Your task to perform on an android device: uninstall "Adobe Acrobat Reader: Edit PDF" Image 0: 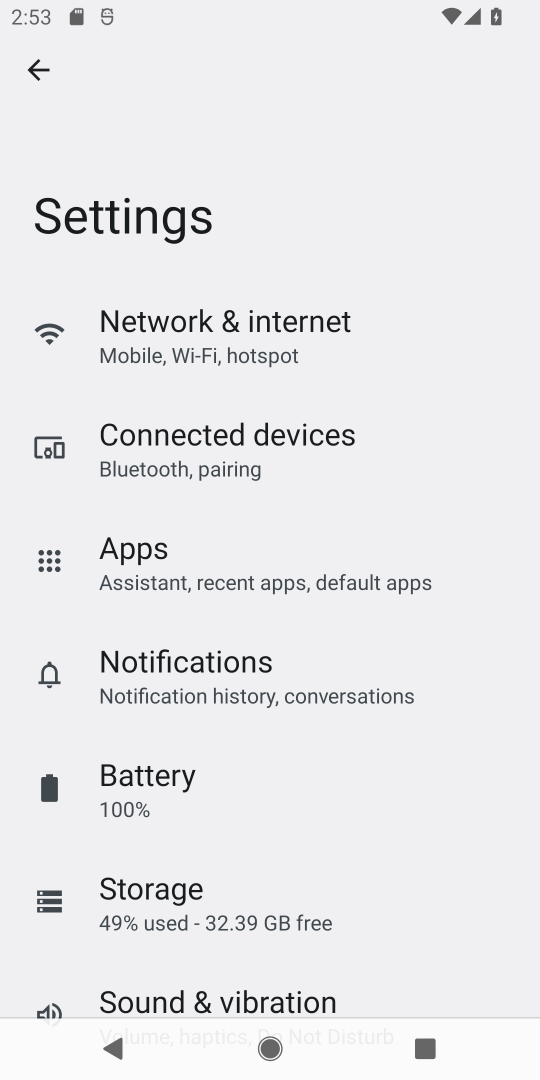
Step 0: press home button
Your task to perform on an android device: uninstall "Adobe Acrobat Reader: Edit PDF" Image 1: 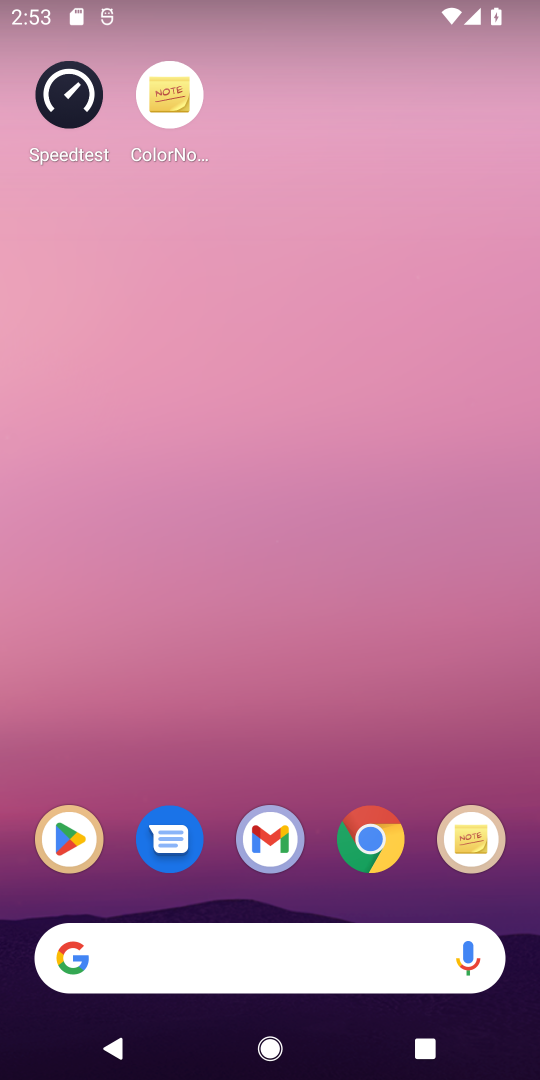
Step 1: click (67, 849)
Your task to perform on an android device: uninstall "Adobe Acrobat Reader: Edit PDF" Image 2: 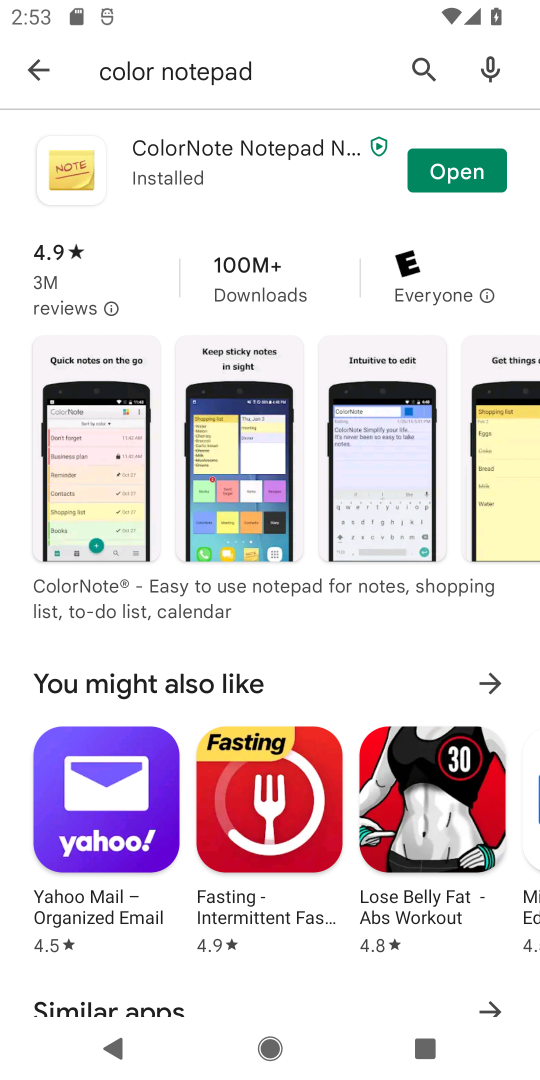
Step 2: click (408, 83)
Your task to perform on an android device: uninstall "Adobe Acrobat Reader: Edit PDF" Image 3: 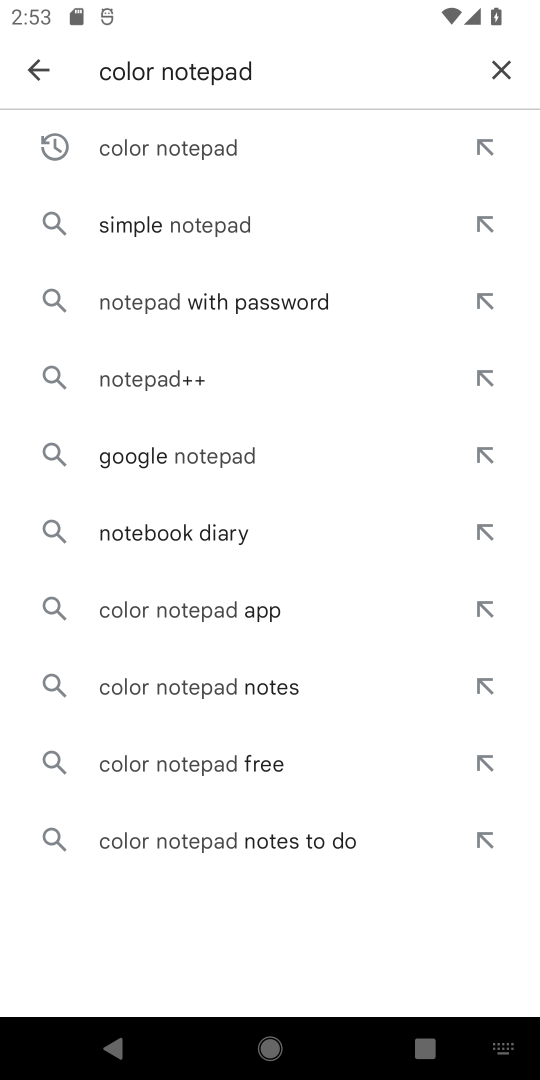
Step 3: click (517, 77)
Your task to perform on an android device: uninstall "Adobe Acrobat Reader: Edit PDF" Image 4: 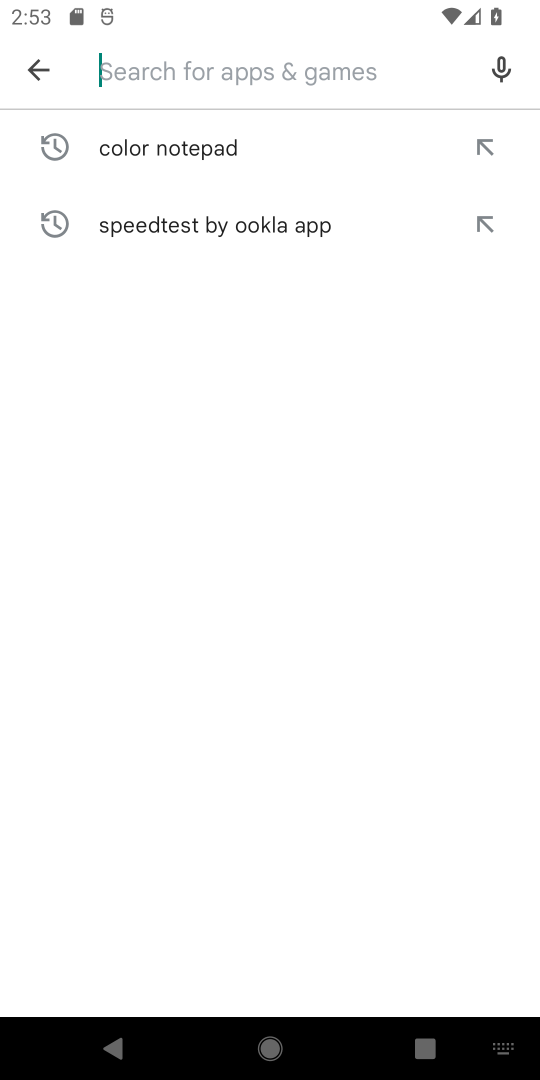
Step 4: type "adobe reader"
Your task to perform on an android device: uninstall "Adobe Acrobat Reader: Edit PDF" Image 5: 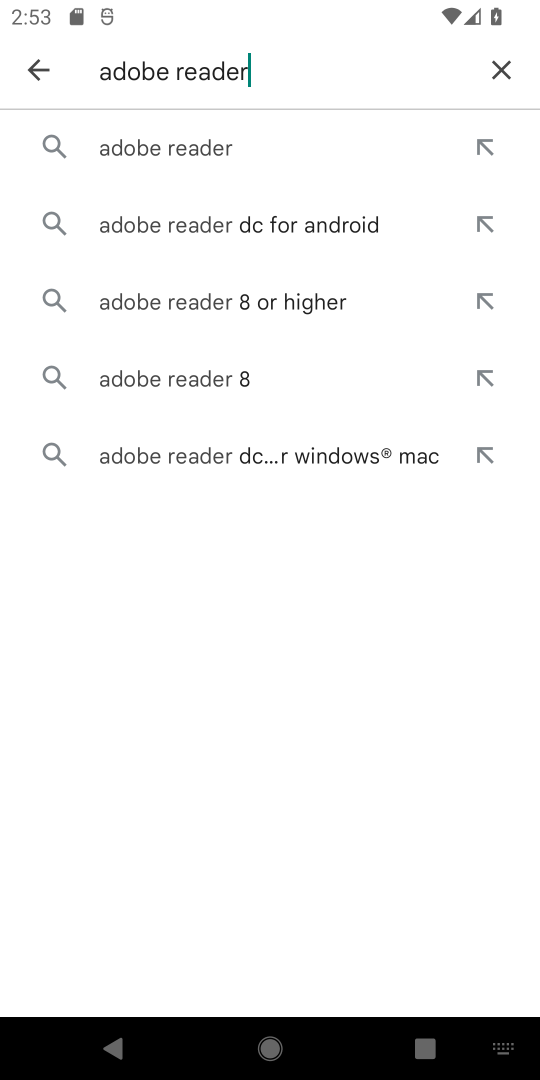
Step 5: click (285, 146)
Your task to perform on an android device: uninstall "Adobe Acrobat Reader: Edit PDF" Image 6: 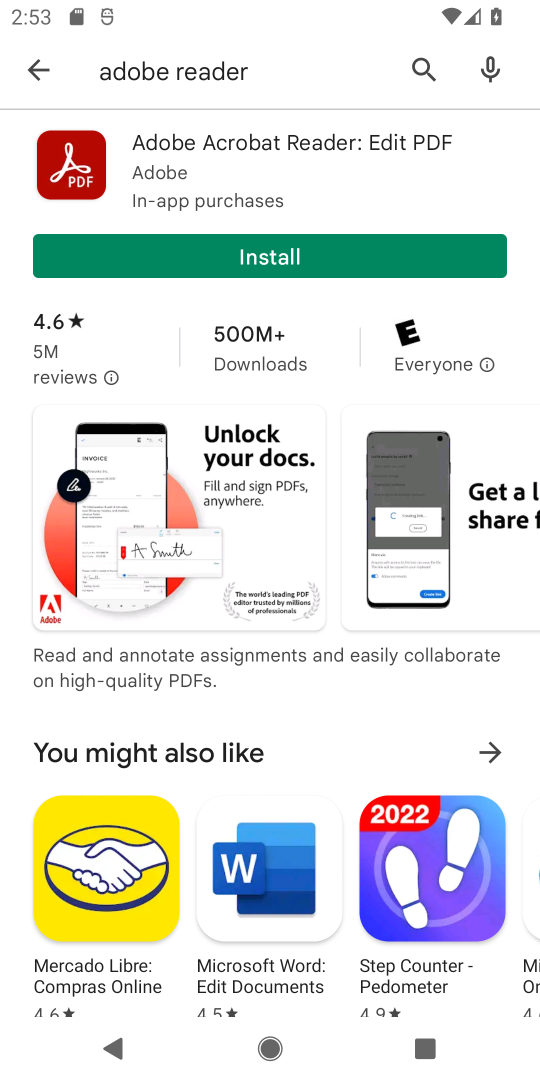
Step 6: click (402, 253)
Your task to perform on an android device: uninstall "Adobe Acrobat Reader: Edit PDF" Image 7: 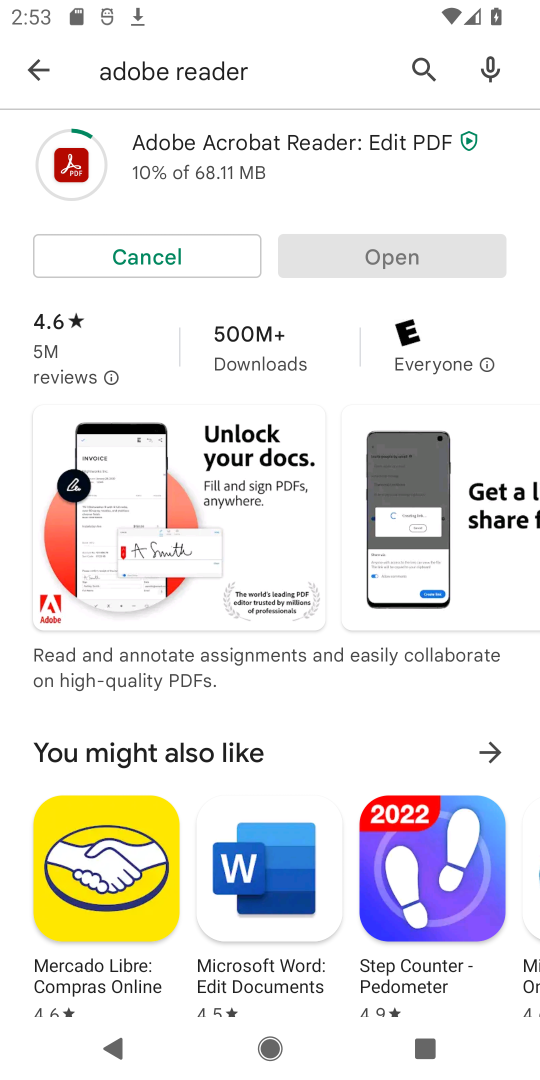
Step 7: task complete